Your task to perform on an android device: toggle location history Image 0: 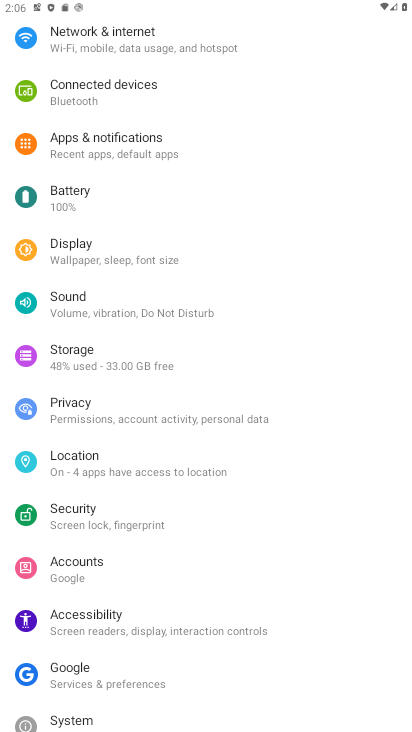
Step 0: click (154, 475)
Your task to perform on an android device: toggle location history Image 1: 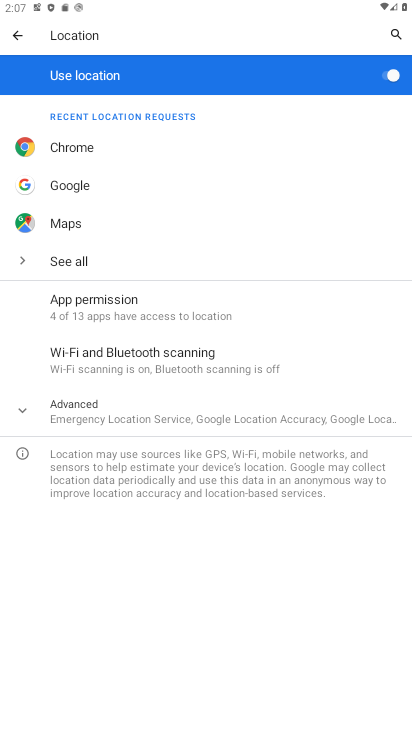
Step 1: click (152, 410)
Your task to perform on an android device: toggle location history Image 2: 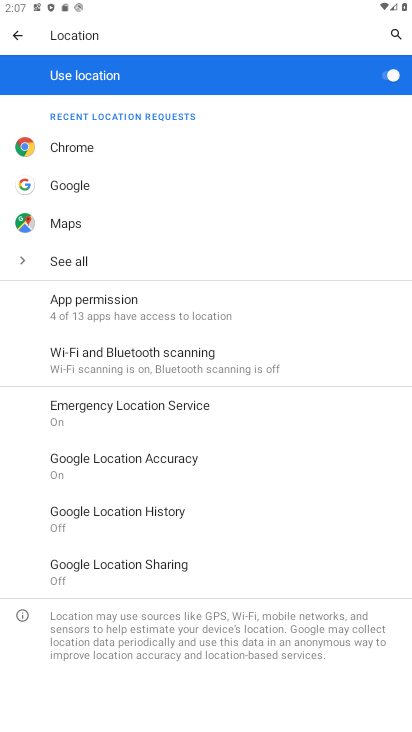
Step 2: click (186, 515)
Your task to perform on an android device: toggle location history Image 3: 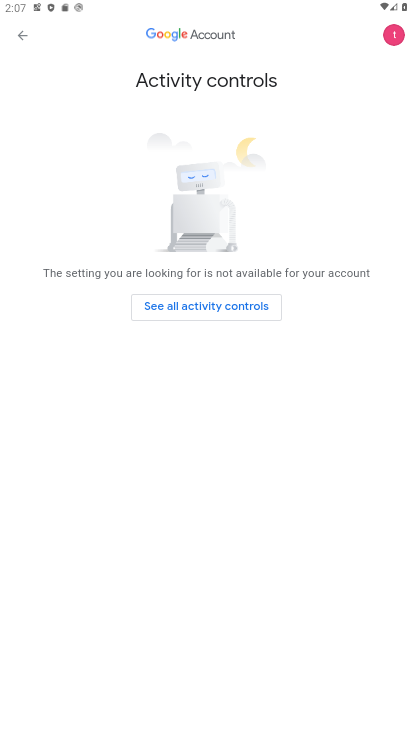
Step 3: click (25, 28)
Your task to perform on an android device: toggle location history Image 4: 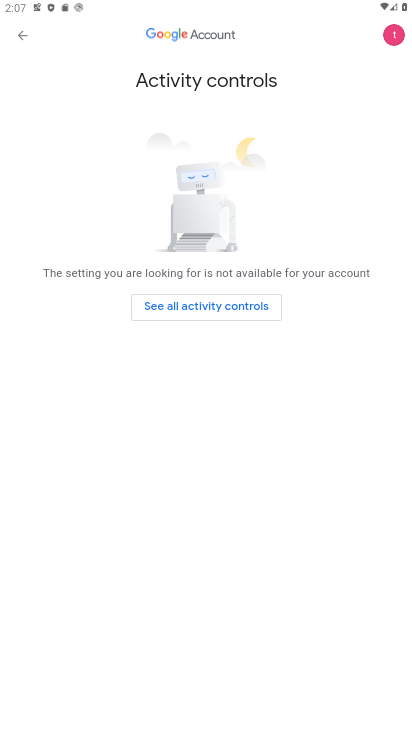
Step 4: click (20, 37)
Your task to perform on an android device: toggle location history Image 5: 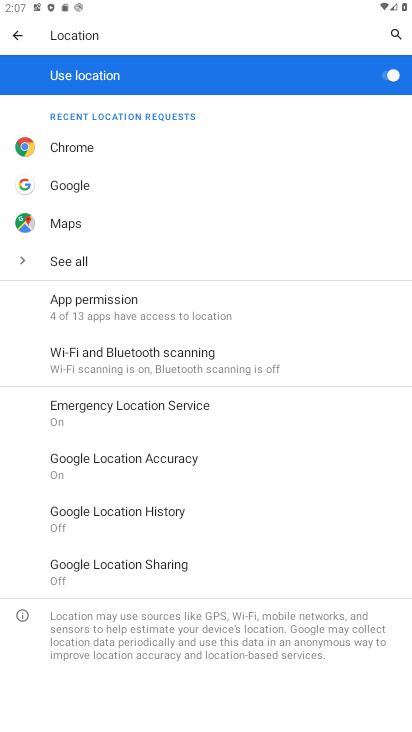
Step 5: click (163, 527)
Your task to perform on an android device: toggle location history Image 6: 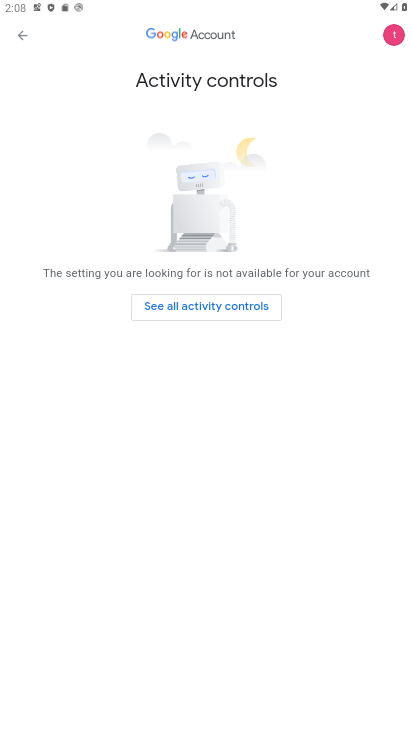
Step 6: click (203, 305)
Your task to perform on an android device: toggle location history Image 7: 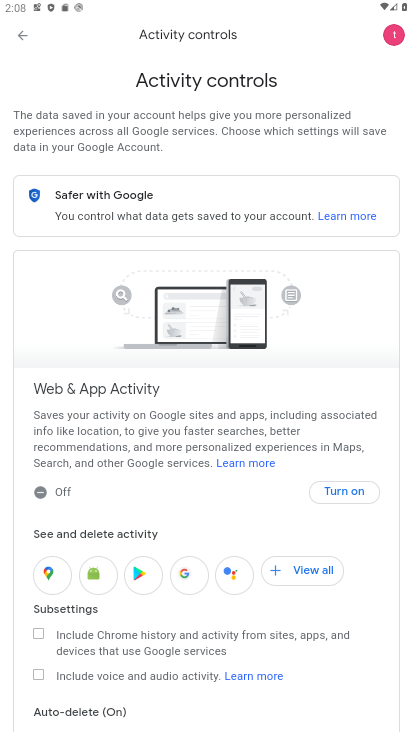
Step 7: click (336, 498)
Your task to perform on an android device: toggle location history Image 8: 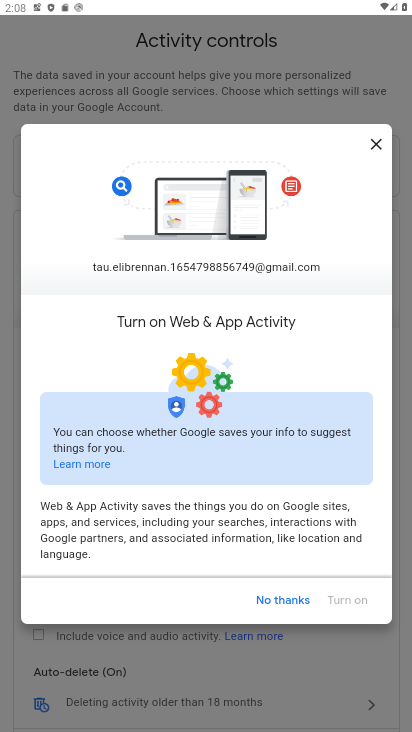
Step 8: click (288, 596)
Your task to perform on an android device: toggle location history Image 9: 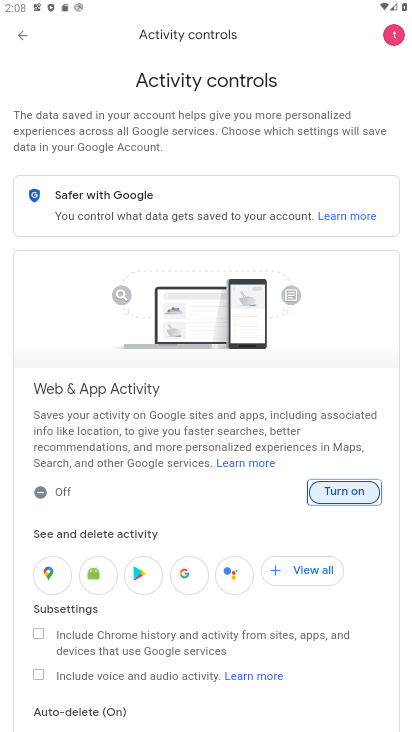
Step 9: task complete